Your task to perform on an android device: Show me popular games on the Play Store Image 0: 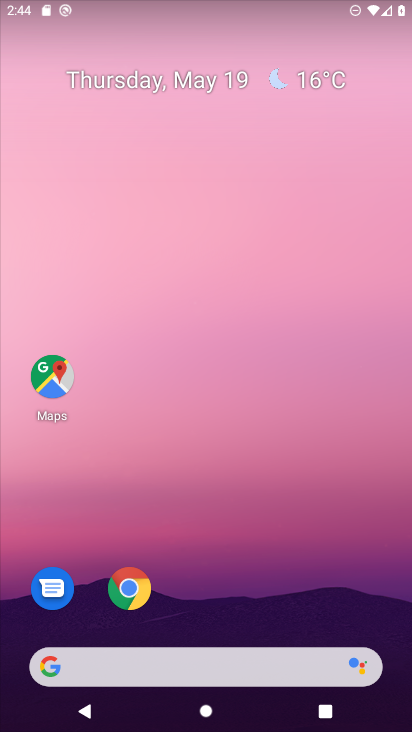
Step 0: drag from (316, 605) to (198, 24)
Your task to perform on an android device: Show me popular games on the Play Store Image 1: 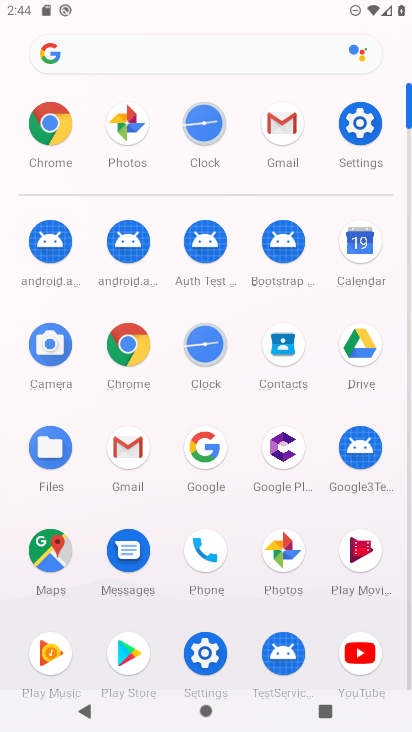
Step 1: click (122, 660)
Your task to perform on an android device: Show me popular games on the Play Store Image 2: 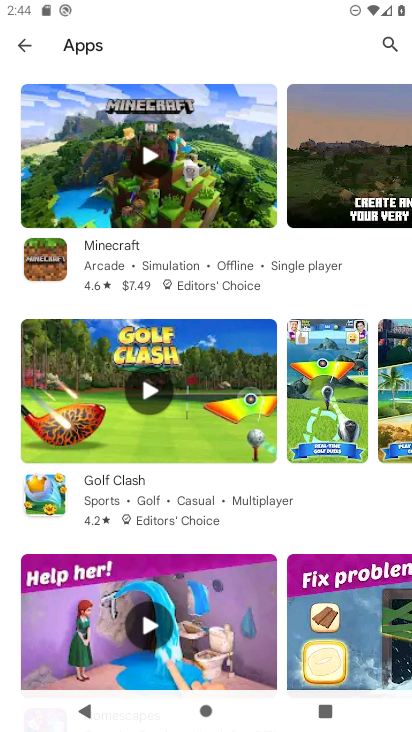
Step 2: drag from (150, 314) to (164, 629)
Your task to perform on an android device: Show me popular games on the Play Store Image 3: 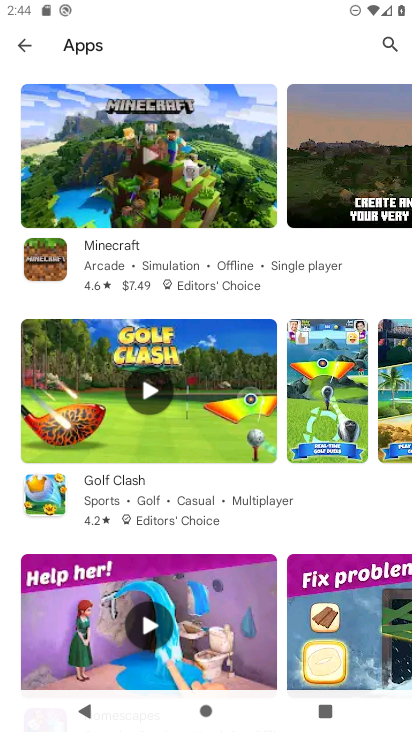
Step 3: drag from (171, 201) to (197, 511)
Your task to perform on an android device: Show me popular games on the Play Store Image 4: 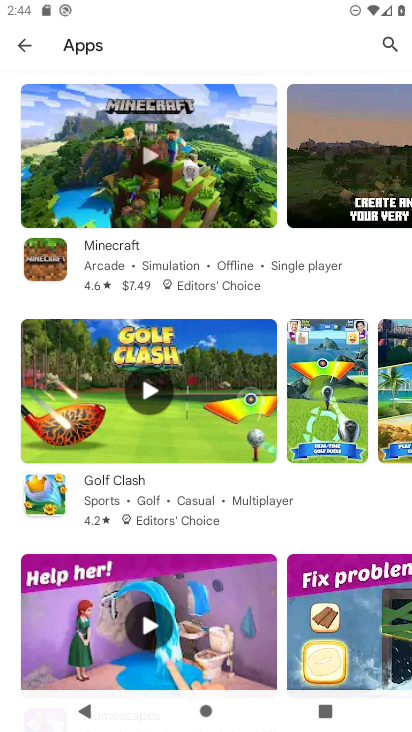
Step 4: drag from (266, 188) to (264, 360)
Your task to perform on an android device: Show me popular games on the Play Store Image 5: 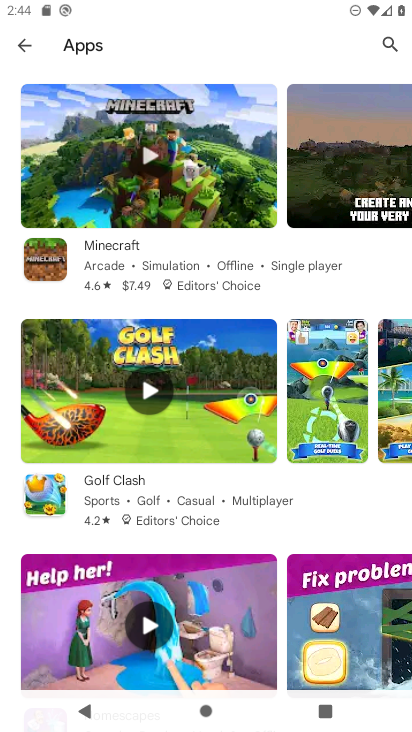
Step 5: click (19, 47)
Your task to perform on an android device: Show me popular games on the Play Store Image 6: 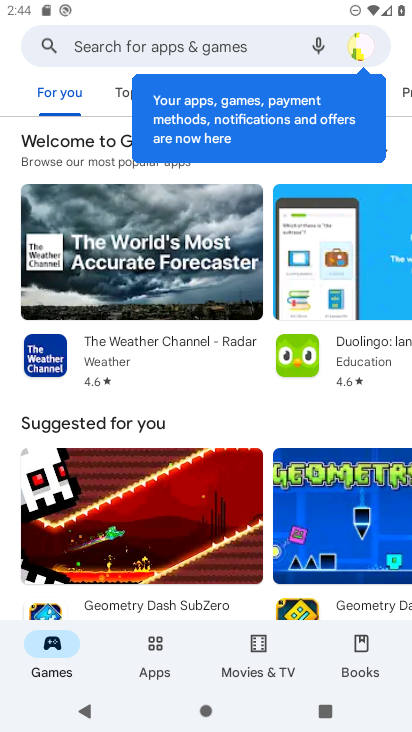
Step 6: drag from (195, 496) to (183, 235)
Your task to perform on an android device: Show me popular games on the Play Store Image 7: 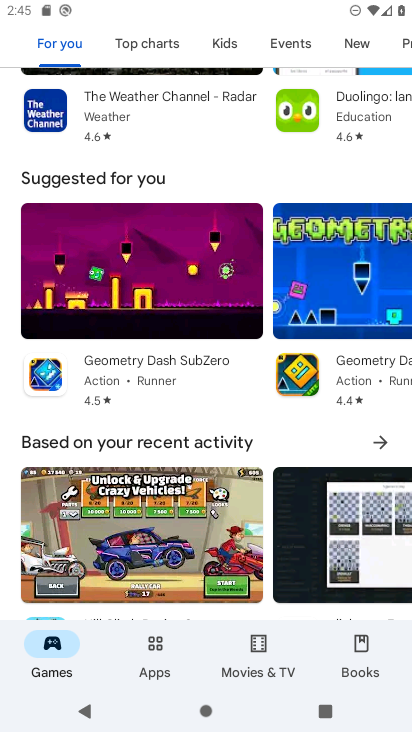
Step 7: drag from (151, 495) to (163, 144)
Your task to perform on an android device: Show me popular games on the Play Store Image 8: 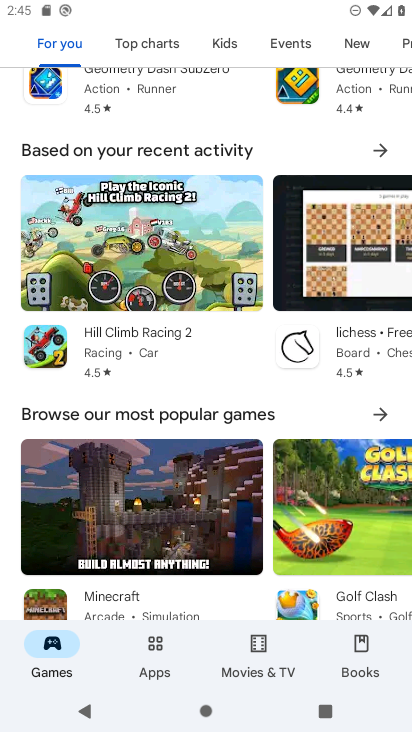
Step 8: drag from (186, 429) to (187, 270)
Your task to perform on an android device: Show me popular games on the Play Store Image 9: 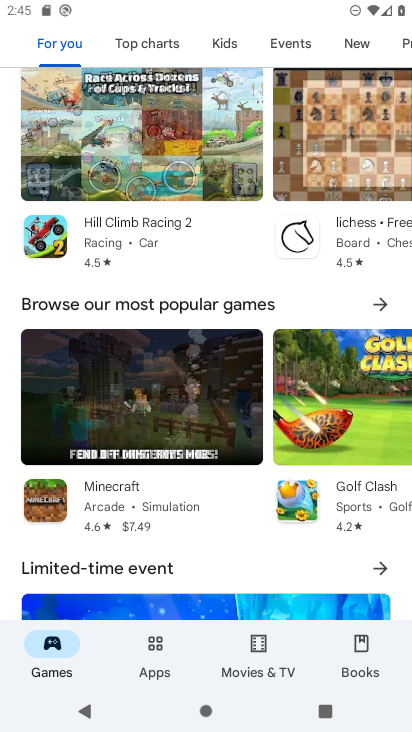
Step 9: click (170, 308)
Your task to perform on an android device: Show me popular games on the Play Store Image 10: 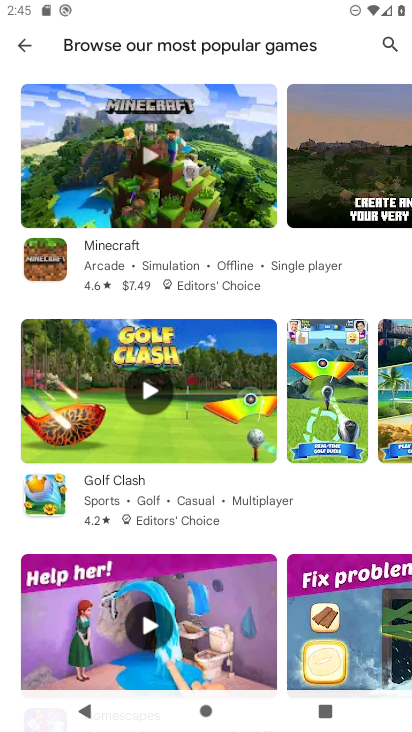
Step 10: task complete